Your task to perform on an android device: Search for macbook pro on ebay.com, select the first entry, and add it to the cart. Image 0: 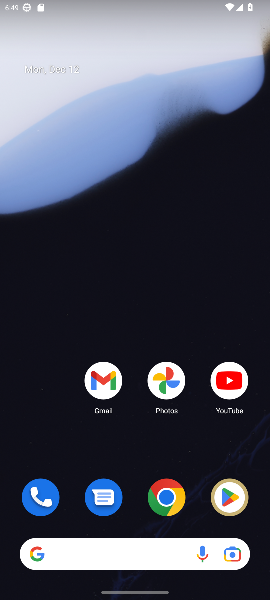
Step 0: press home button
Your task to perform on an android device: Search for macbook pro on ebay.com, select the first entry, and add it to the cart. Image 1: 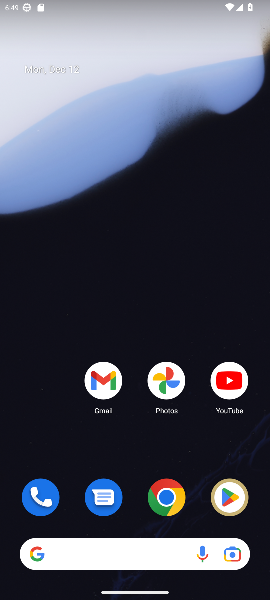
Step 1: drag from (73, 411) to (53, 146)
Your task to perform on an android device: Search for macbook pro on ebay.com, select the first entry, and add it to the cart. Image 2: 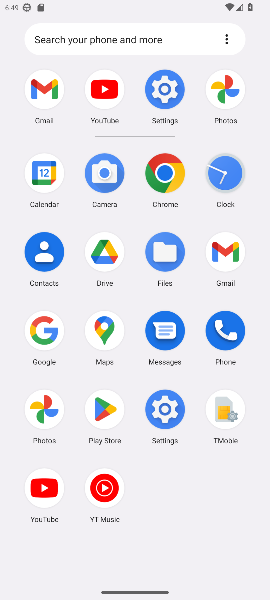
Step 2: click (45, 331)
Your task to perform on an android device: Search for macbook pro on ebay.com, select the first entry, and add it to the cart. Image 3: 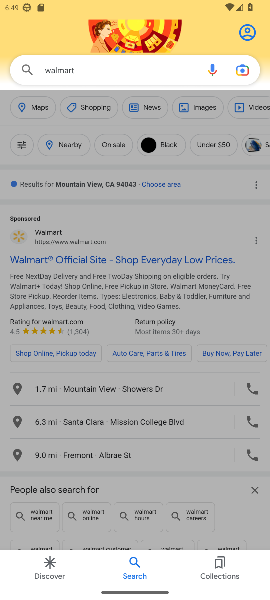
Step 3: click (97, 69)
Your task to perform on an android device: Search for macbook pro on ebay.com, select the first entry, and add it to the cart. Image 4: 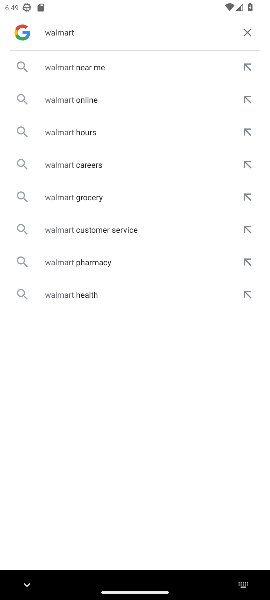
Step 4: click (245, 30)
Your task to perform on an android device: Search for macbook pro on ebay.com, select the first entry, and add it to the cart. Image 5: 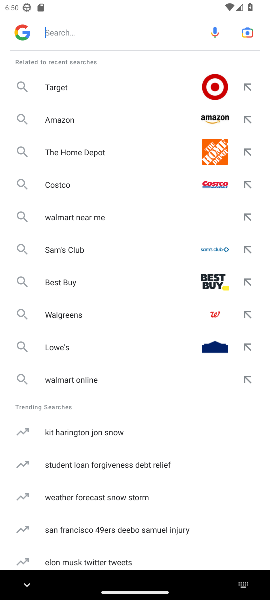
Step 5: type "ebay.com"
Your task to perform on an android device: Search for macbook pro on ebay.com, select the first entry, and add it to the cart. Image 6: 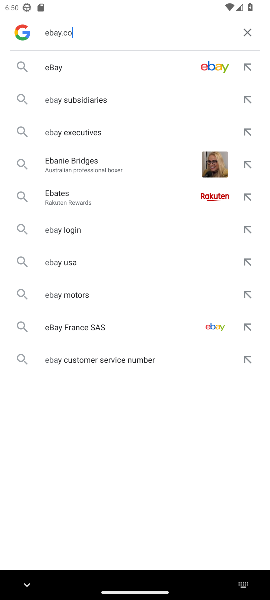
Step 6: press enter
Your task to perform on an android device: Search for macbook pro on ebay.com, select the first entry, and add it to the cart. Image 7: 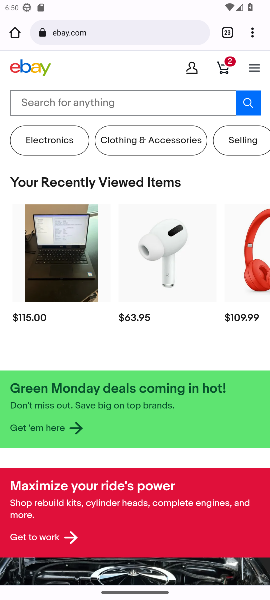
Step 7: click (125, 98)
Your task to perform on an android device: Search for macbook pro on ebay.com, select the first entry, and add it to the cart. Image 8: 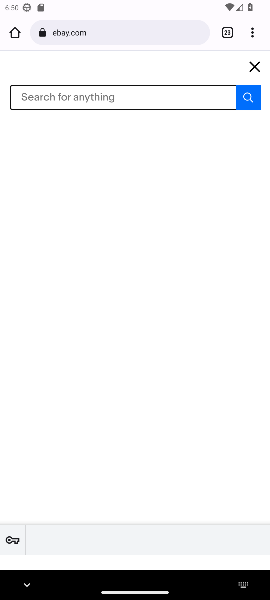
Step 8: type "macbook pro "
Your task to perform on an android device: Search for macbook pro on ebay.com, select the first entry, and add it to the cart. Image 9: 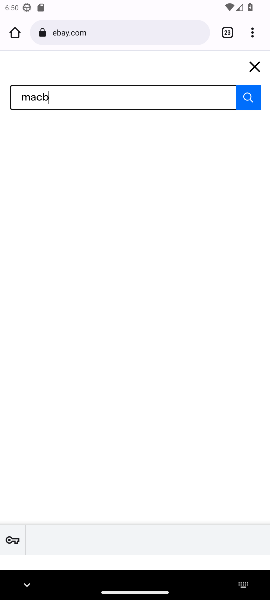
Step 9: press enter
Your task to perform on an android device: Search for macbook pro on ebay.com, select the first entry, and add it to the cart. Image 10: 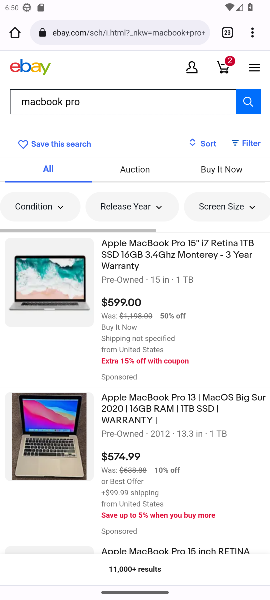
Step 10: click (143, 266)
Your task to perform on an android device: Search for macbook pro on ebay.com, select the first entry, and add it to the cart. Image 11: 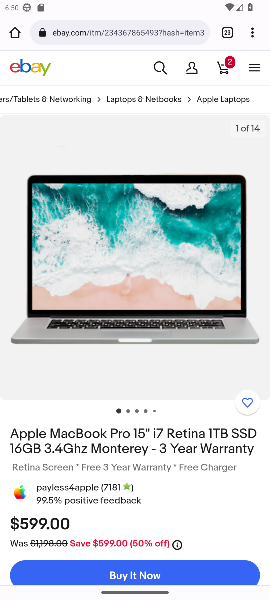
Step 11: drag from (241, 510) to (219, 184)
Your task to perform on an android device: Search for macbook pro on ebay.com, select the first entry, and add it to the cart. Image 12: 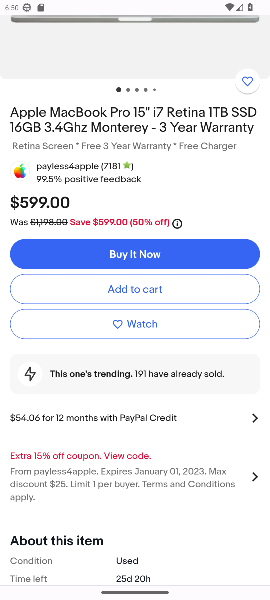
Step 12: click (132, 288)
Your task to perform on an android device: Search for macbook pro on ebay.com, select the first entry, and add it to the cart. Image 13: 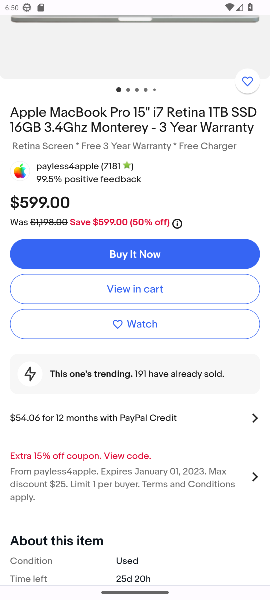
Step 13: task complete